Your task to perform on an android device: Open the stopwatch Image 0: 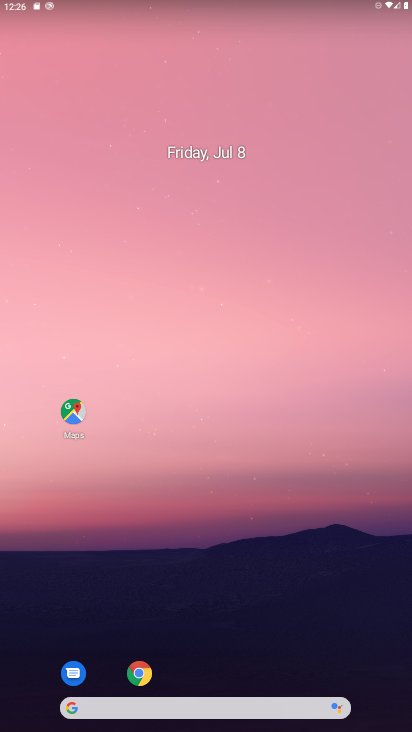
Step 0: drag from (376, 705) to (345, 222)
Your task to perform on an android device: Open the stopwatch Image 1: 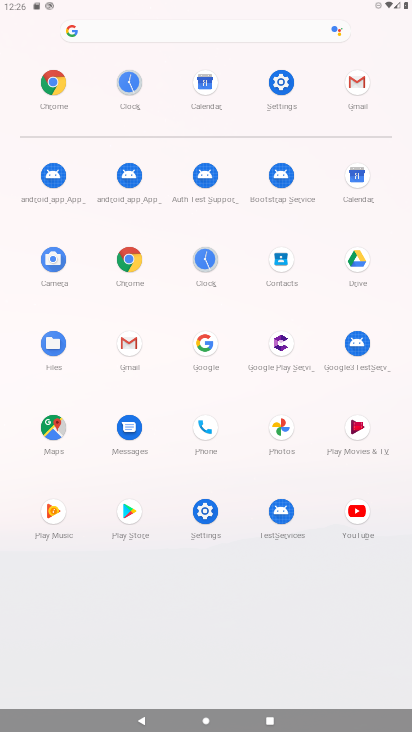
Step 1: click (212, 268)
Your task to perform on an android device: Open the stopwatch Image 2: 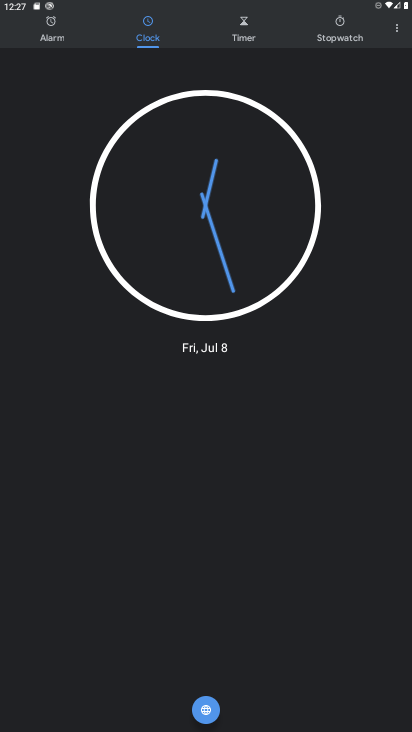
Step 2: click (353, 20)
Your task to perform on an android device: Open the stopwatch Image 3: 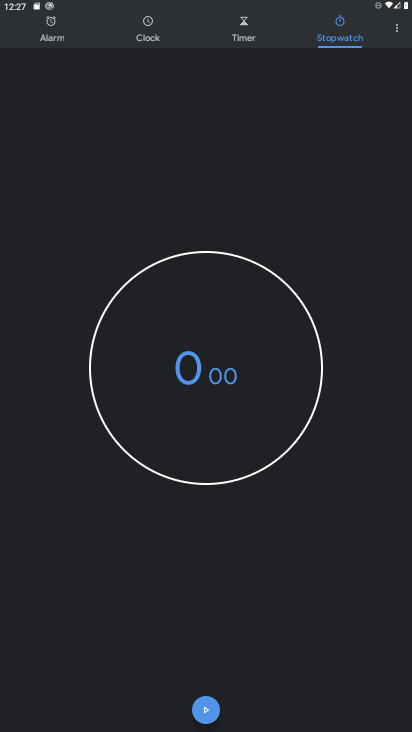
Step 3: task complete